Your task to perform on an android device: see tabs open on other devices in the chrome app Image 0: 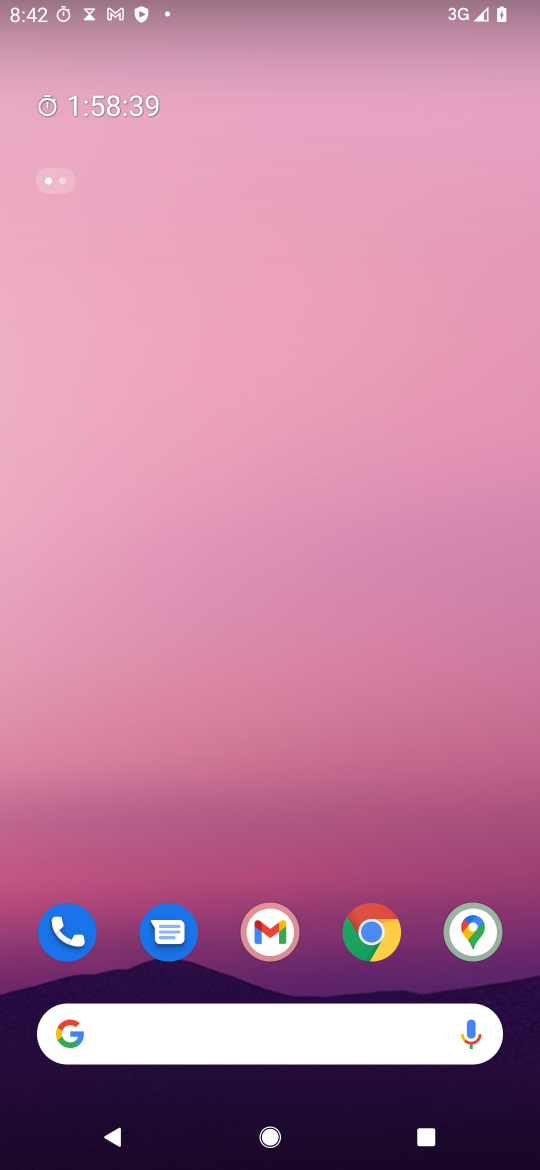
Step 0: drag from (215, 873) to (291, 9)
Your task to perform on an android device: see tabs open on other devices in the chrome app Image 1: 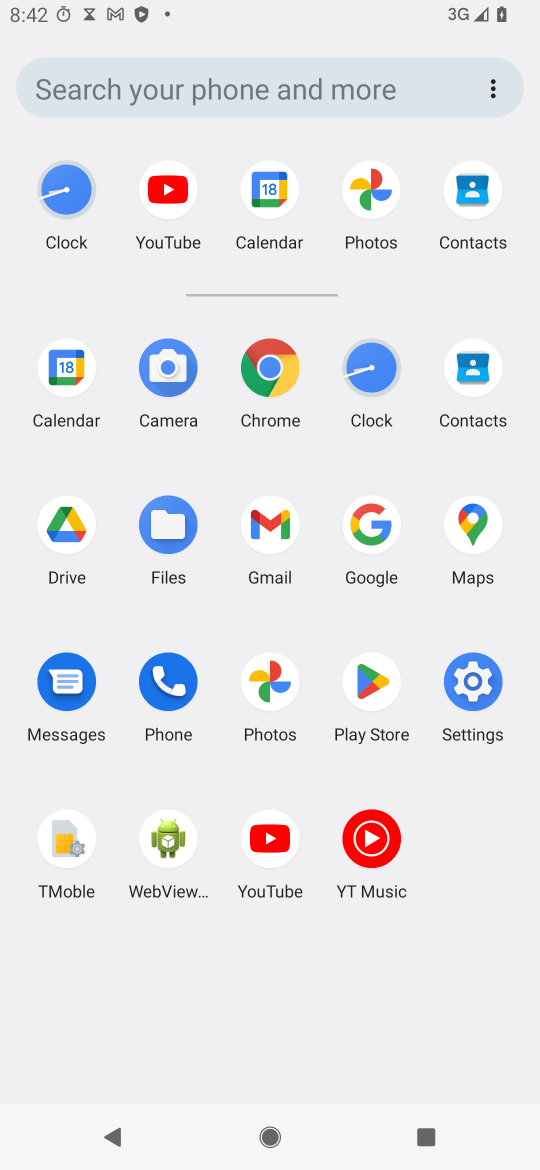
Step 1: click (281, 361)
Your task to perform on an android device: see tabs open on other devices in the chrome app Image 2: 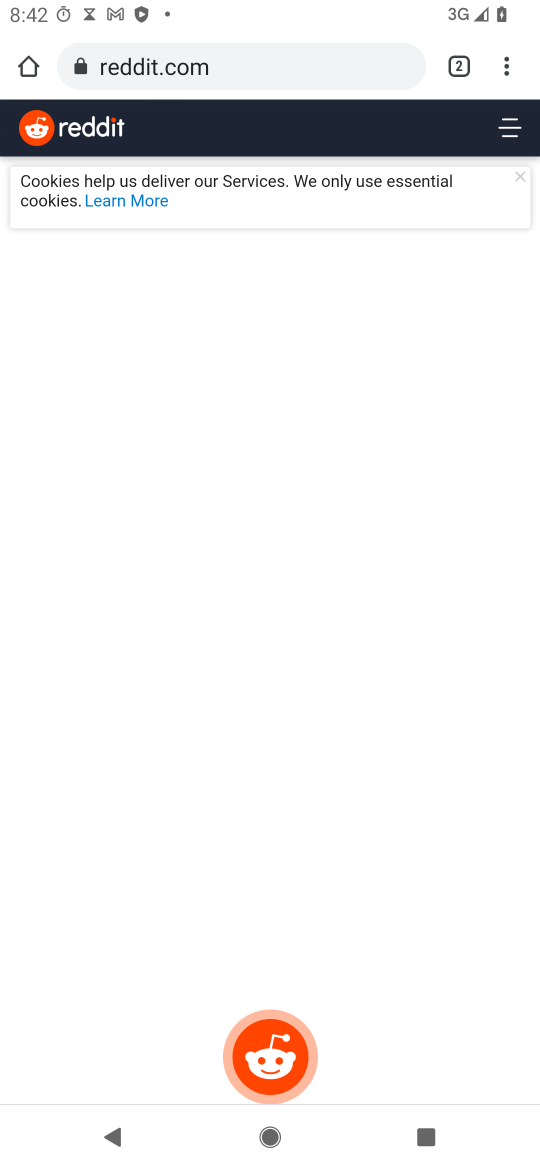
Step 2: task complete